Your task to perform on an android device: Open the stopwatch Image 0: 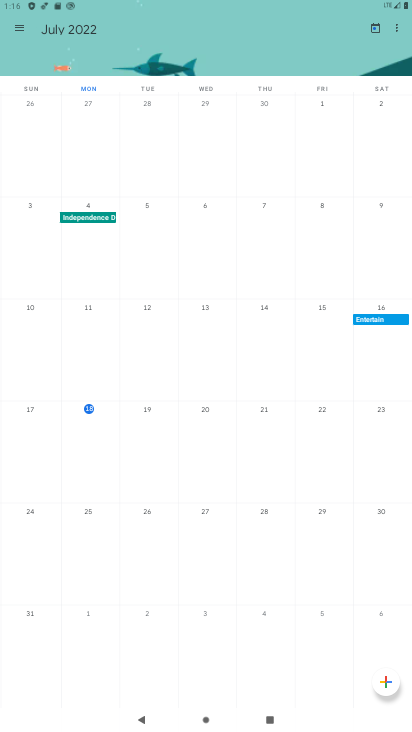
Step 0: press home button
Your task to perform on an android device: Open the stopwatch Image 1: 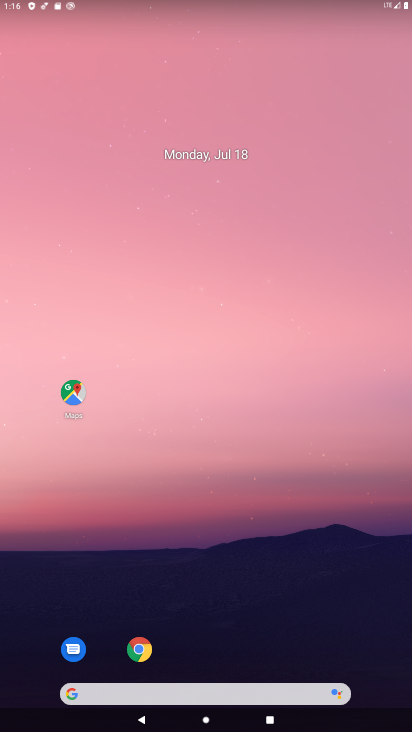
Step 1: drag from (221, 713) to (188, 22)
Your task to perform on an android device: Open the stopwatch Image 2: 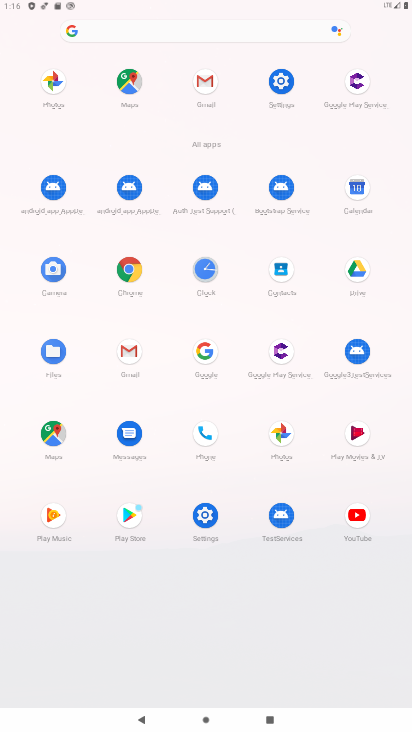
Step 2: click (206, 268)
Your task to perform on an android device: Open the stopwatch Image 3: 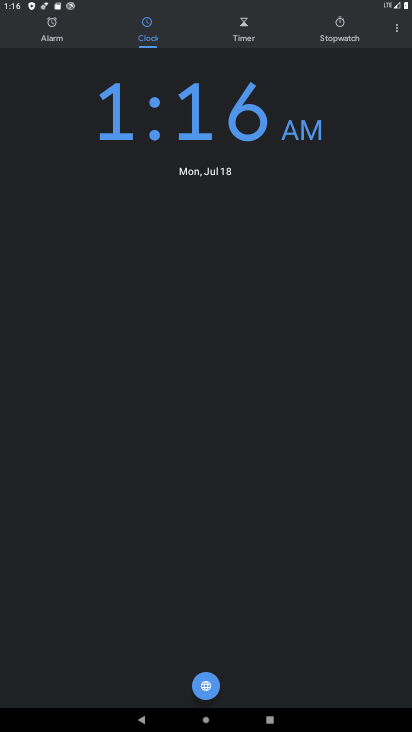
Step 3: click (333, 33)
Your task to perform on an android device: Open the stopwatch Image 4: 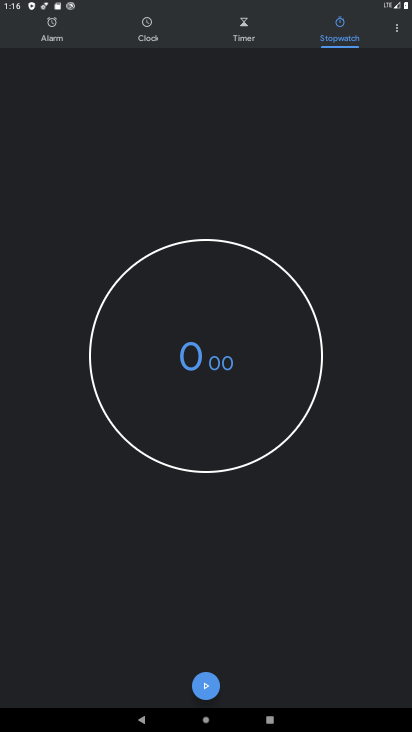
Step 4: task complete